Your task to perform on an android device: Open notification settings Image 0: 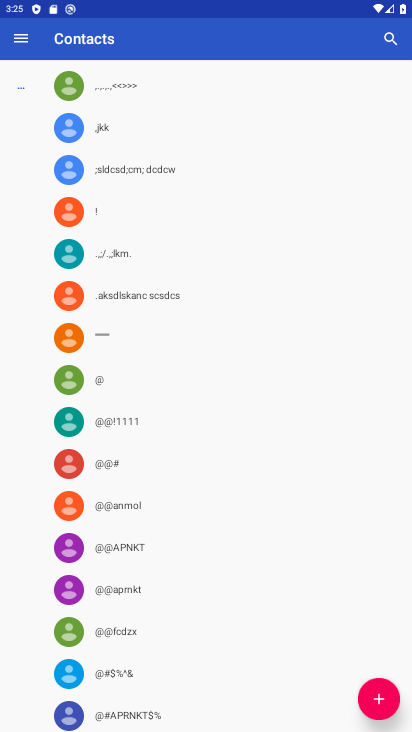
Step 0: press home button
Your task to perform on an android device: Open notification settings Image 1: 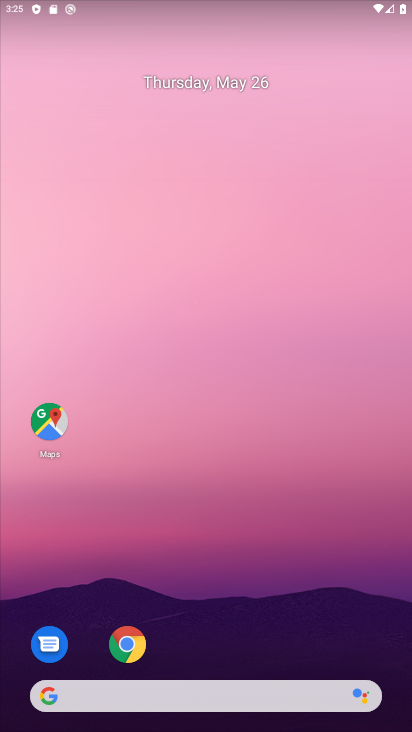
Step 1: drag from (230, 648) to (332, 123)
Your task to perform on an android device: Open notification settings Image 2: 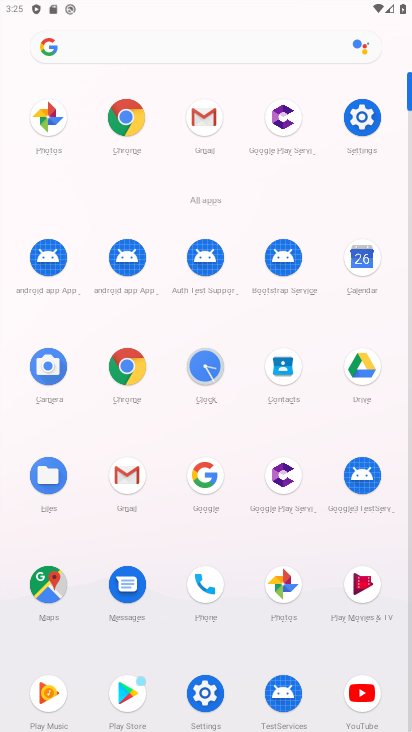
Step 2: drag from (174, 655) to (208, 453)
Your task to perform on an android device: Open notification settings Image 3: 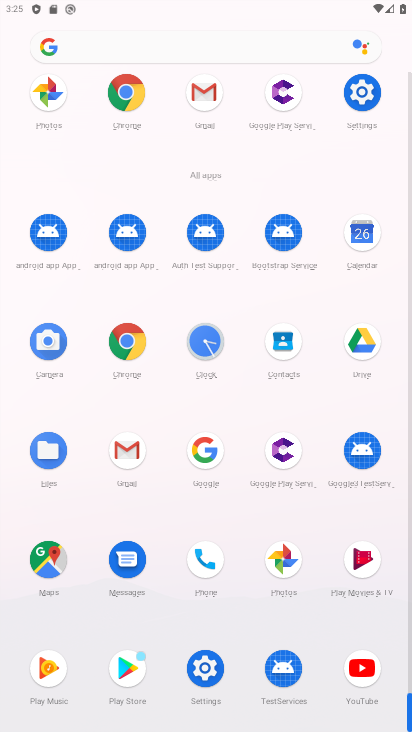
Step 3: click (205, 682)
Your task to perform on an android device: Open notification settings Image 4: 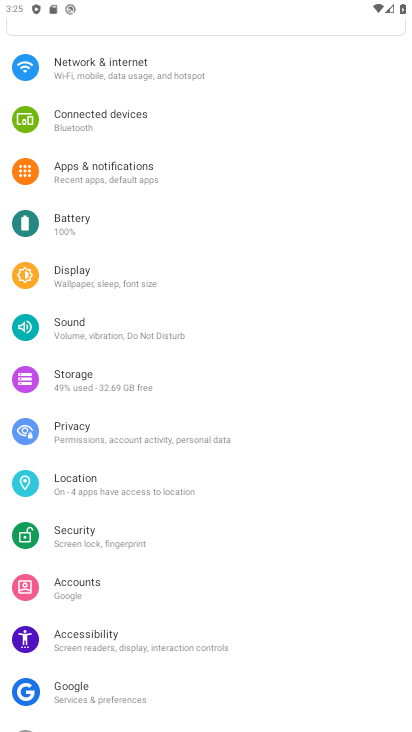
Step 4: click (175, 164)
Your task to perform on an android device: Open notification settings Image 5: 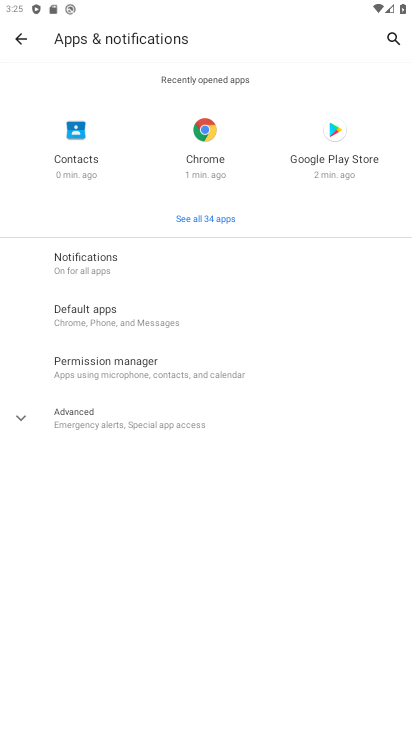
Step 5: click (240, 262)
Your task to perform on an android device: Open notification settings Image 6: 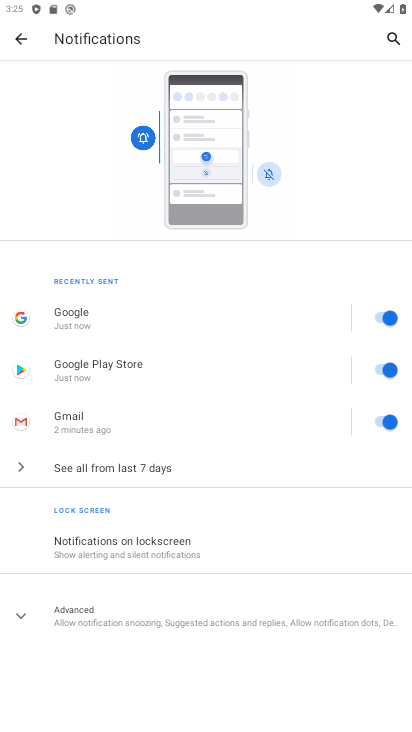
Step 6: task complete